Your task to perform on an android device: toggle airplane mode Image 0: 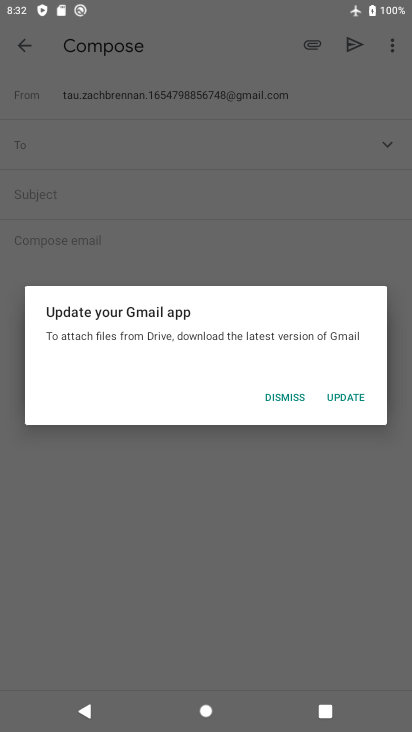
Step 0: press home button
Your task to perform on an android device: toggle airplane mode Image 1: 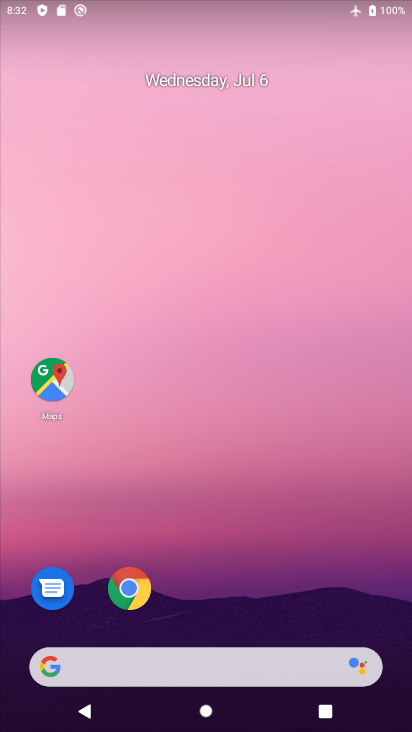
Step 1: drag from (271, 558) to (183, 16)
Your task to perform on an android device: toggle airplane mode Image 2: 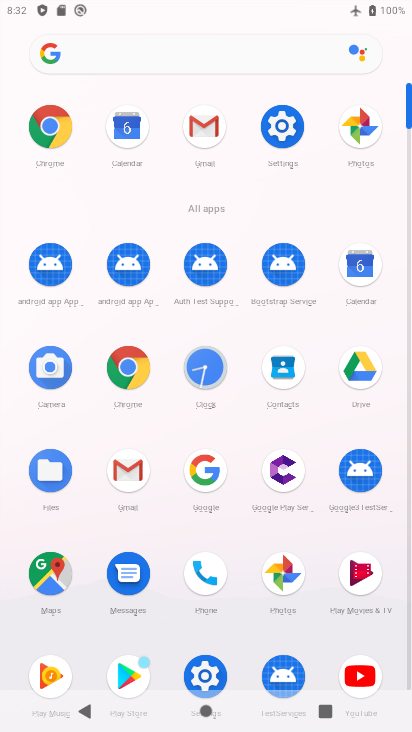
Step 2: click (281, 125)
Your task to perform on an android device: toggle airplane mode Image 3: 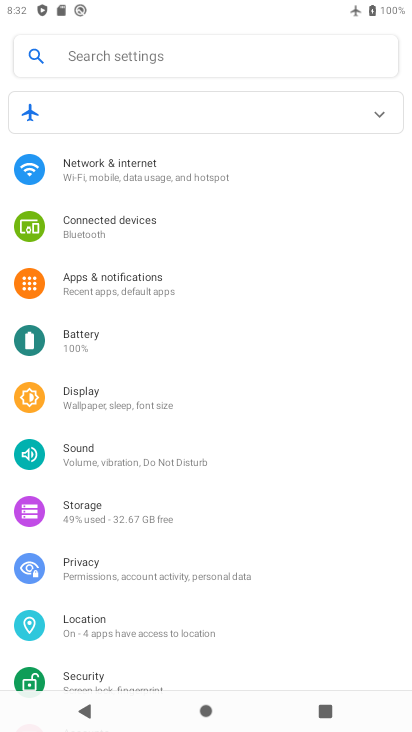
Step 3: click (122, 169)
Your task to perform on an android device: toggle airplane mode Image 4: 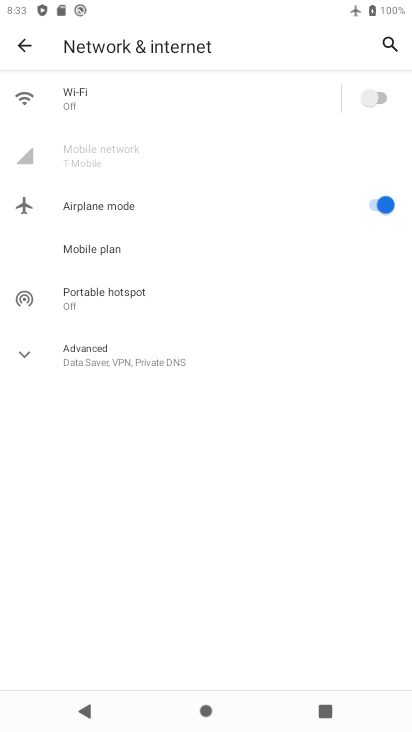
Step 4: click (388, 201)
Your task to perform on an android device: toggle airplane mode Image 5: 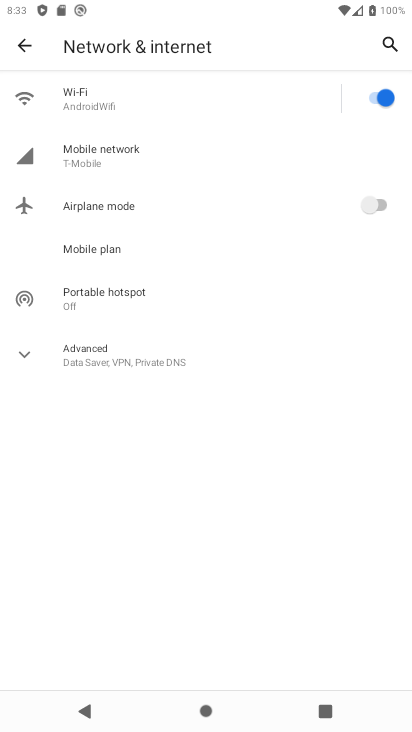
Step 5: task complete